Your task to perform on an android device: check android version Image 0: 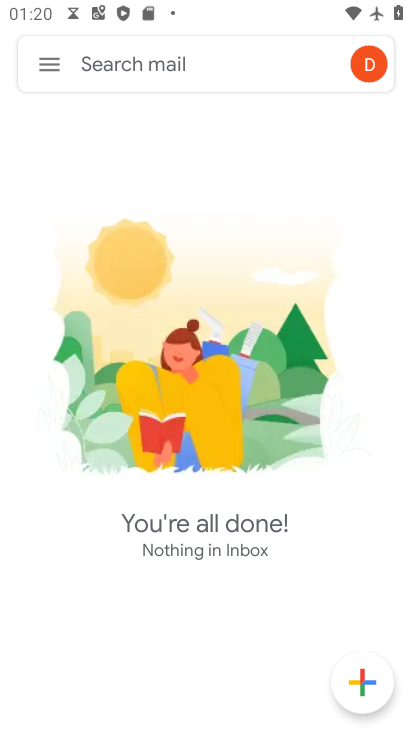
Step 0: press home button
Your task to perform on an android device: check android version Image 1: 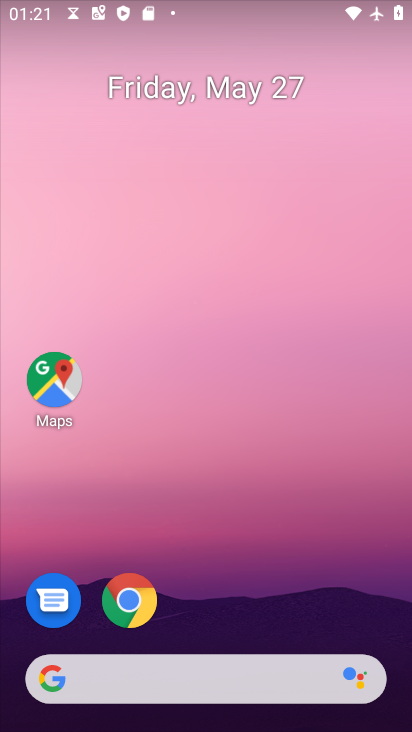
Step 1: drag from (317, 581) to (301, 88)
Your task to perform on an android device: check android version Image 2: 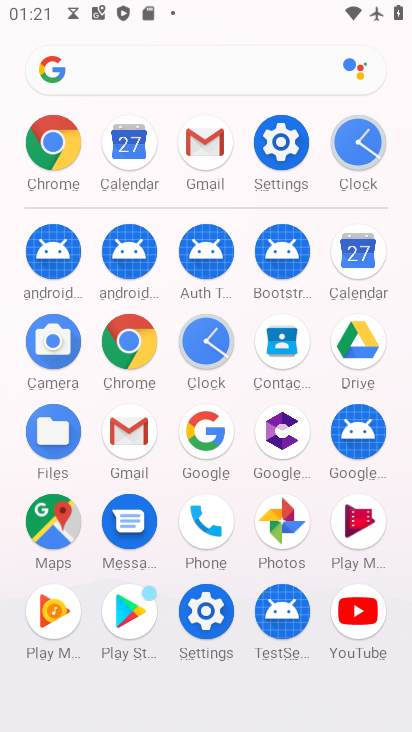
Step 2: click (265, 141)
Your task to perform on an android device: check android version Image 3: 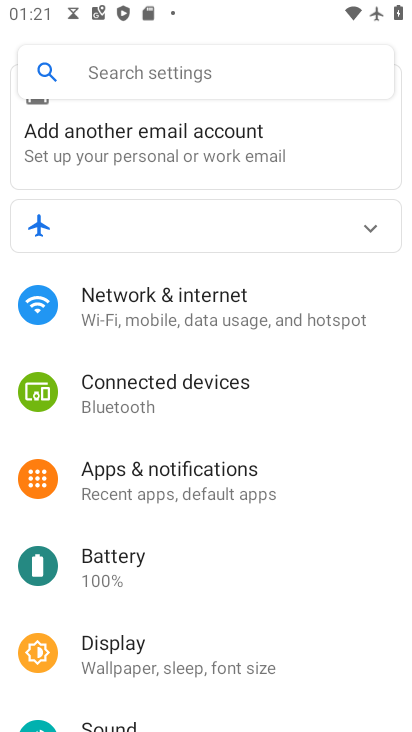
Step 3: drag from (224, 518) to (213, 286)
Your task to perform on an android device: check android version Image 4: 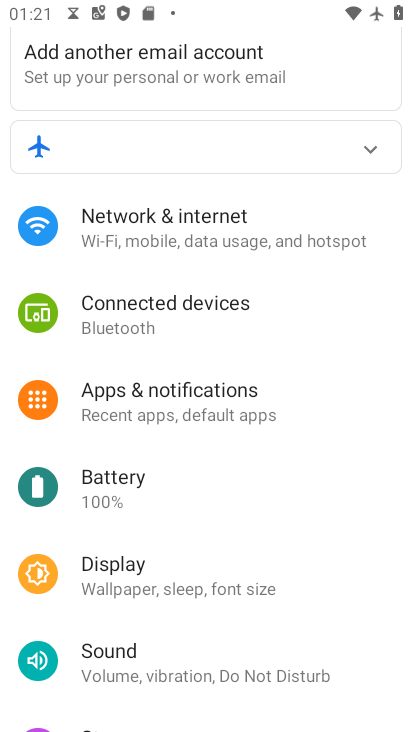
Step 4: drag from (199, 486) to (186, 218)
Your task to perform on an android device: check android version Image 5: 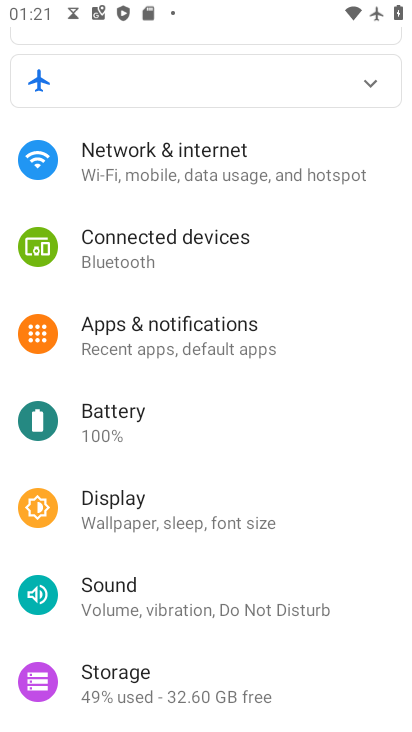
Step 5: drag from (153, 458) to (152, 183)
Your task to perform on an android device: check android version Image 6: 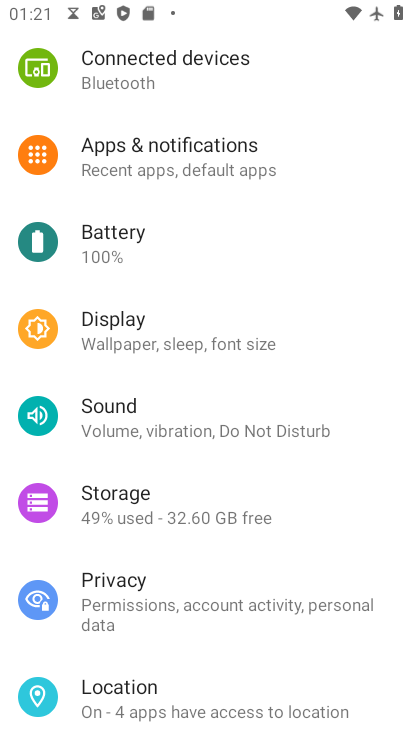
Step 6: drag from (217, 477) to (217, 213)
Your task to perform on an android device: check android version Image 7: 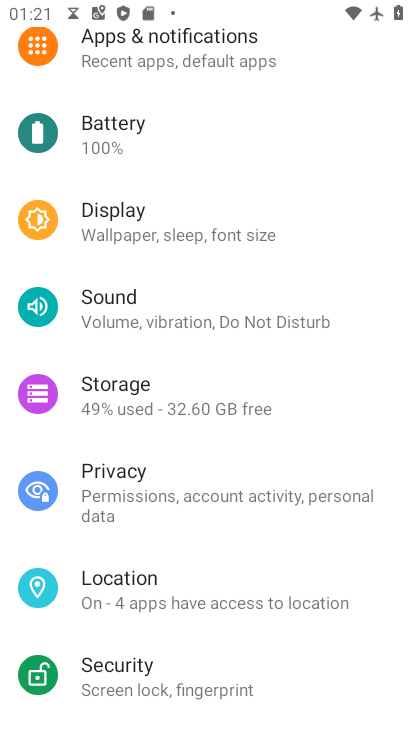
Step 7: drag from (208, 597) to (195, 95)
Your task to perform on an android device: check android version Image 8: 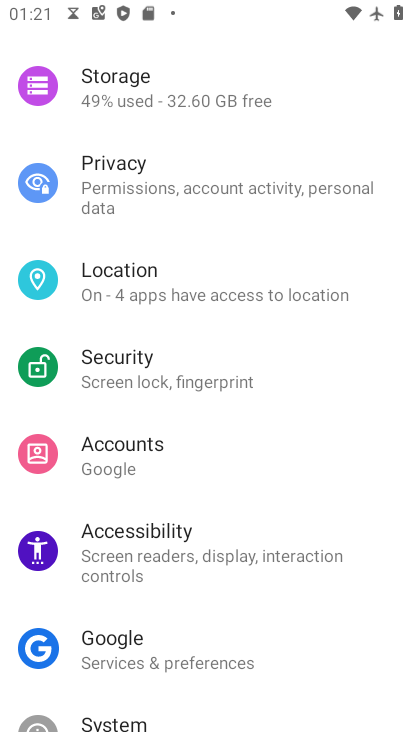
Step 8: drag from (227, 640) to (211, 138)
Your task to perform on an android device: check android version Image 9: 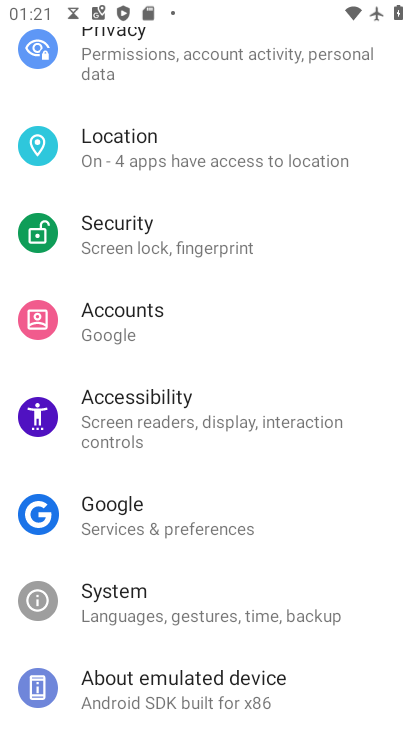
Step 9: click (235, 694)
Your task to perform on an android device: check android version Image 10: 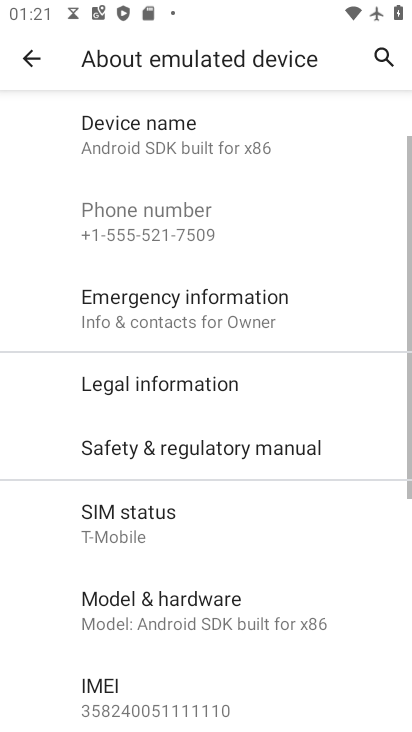
Step 10: drag from (251, 619) to (221, 163)
Your task to perform on an android device: check android version Image 11: 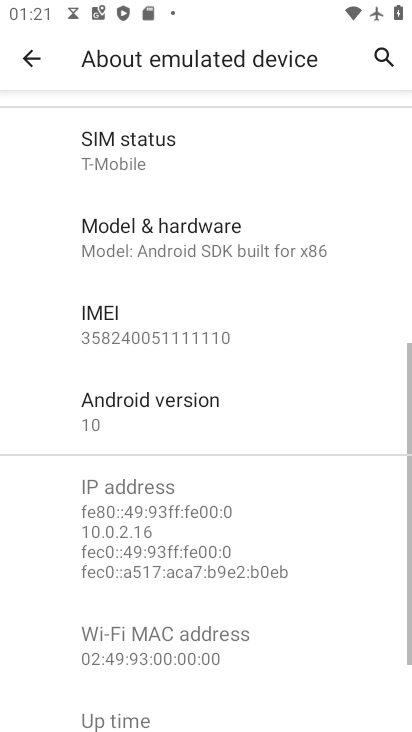
Step 11: drag from (208, 543) to (185, 103)
Your task to perform on an android device: check android version Image 12: 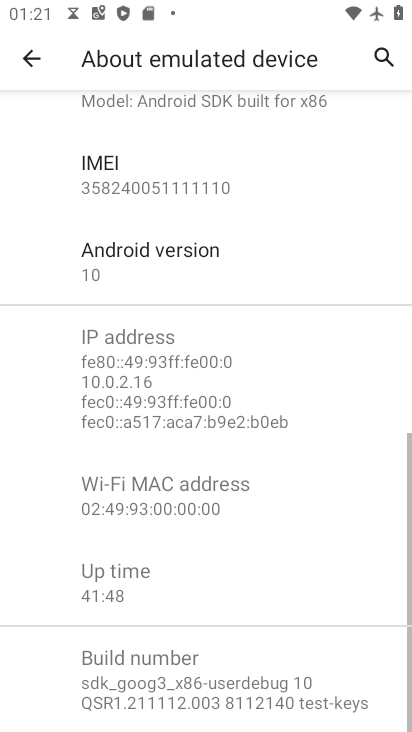
Step 12: click (175, 243)
Your task to perform on an android device: check android version Image 13: 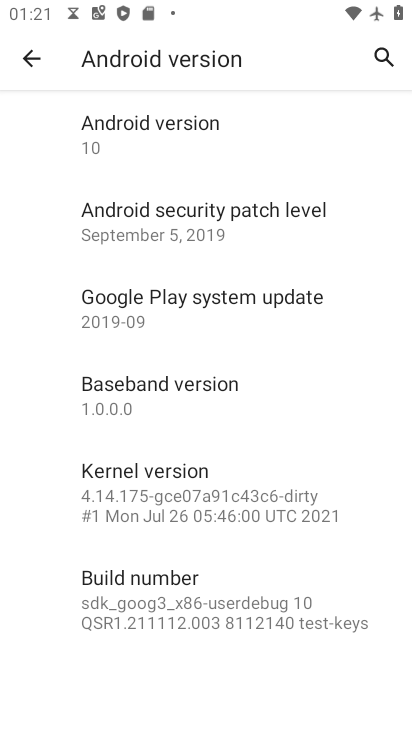
Step 13: click (205, 141)
Your task to perform on an android device: check android version Image 14: 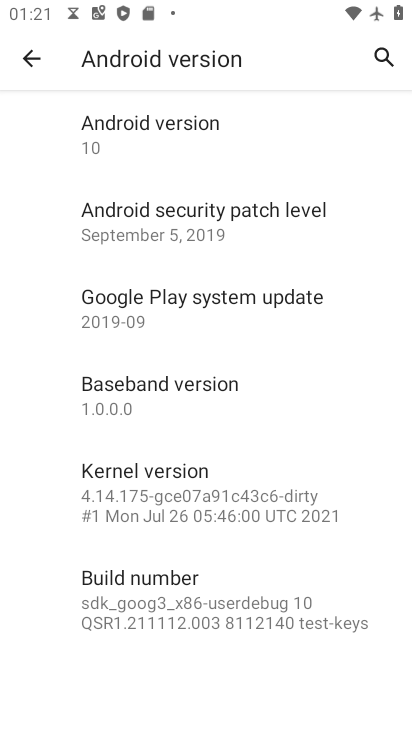
Step 14: task complete